Your task to perform on an android device: turn off picture-in-picture Image 0: 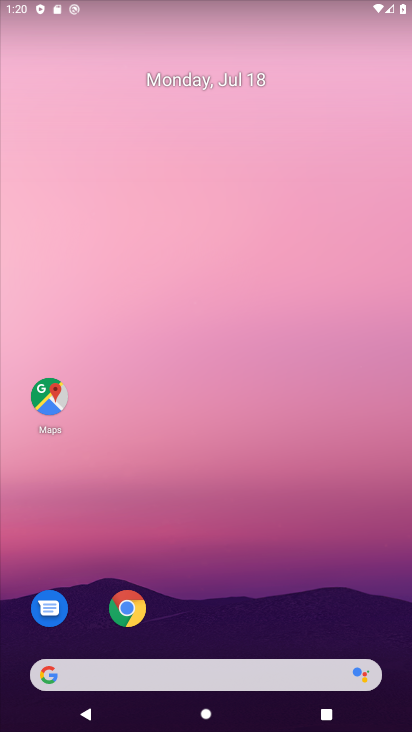
Step 0: drag from (253, 640) to (304, 23)
Your task to perform on an android device: turn off picture-in-picture Image 1: 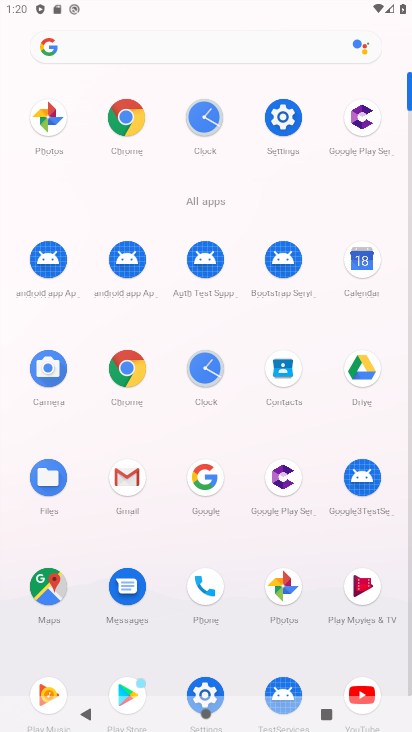
Step 1: click (114, 123)
Your task to perform on an android device: turn off picture-in-picture Image 2: 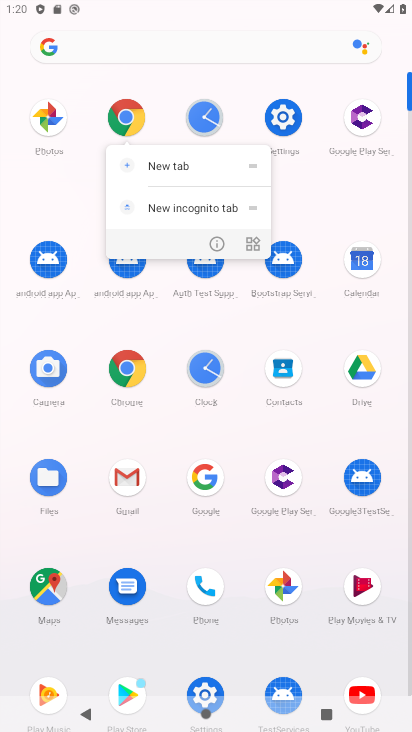
Step 2: click (219, 247)
Your task to perform on an android device: turn off picture-in-picture Image 3: 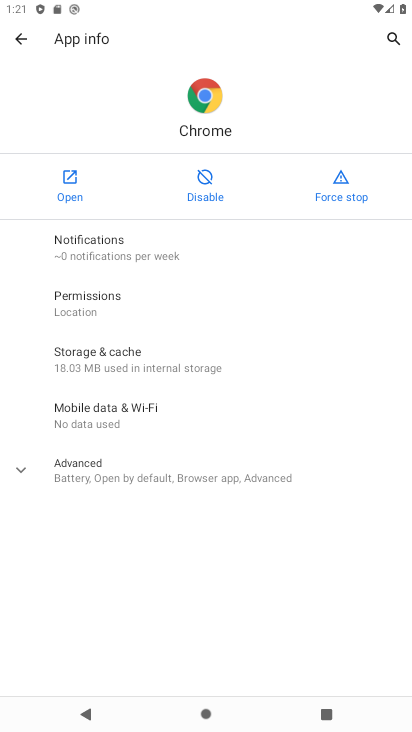
Step 3: click (133, 472)
Your task to perform on an android device: turn off picture-in-picture Image 4: 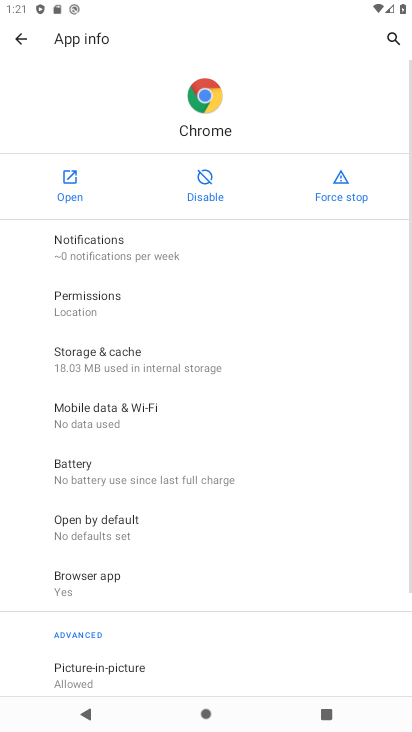
Step 4: drag from (116, 629) to (232, 342)
Your task to perform on an android device: turn off picture-in-picture Image 5: 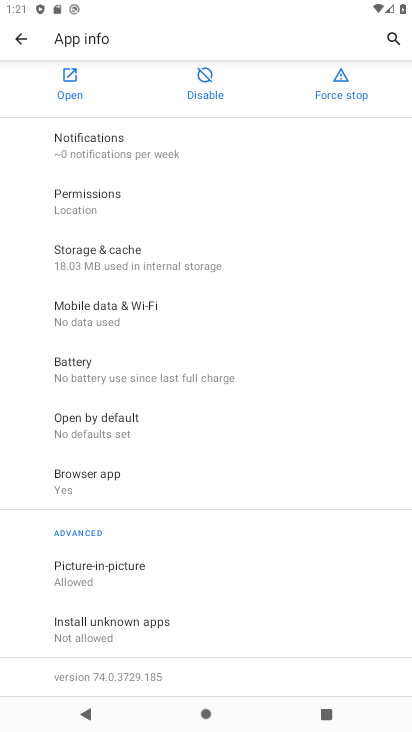
Step 5: click (77, 583)
Your task to perform on an android device: turn off picture-in-picture Image 6: 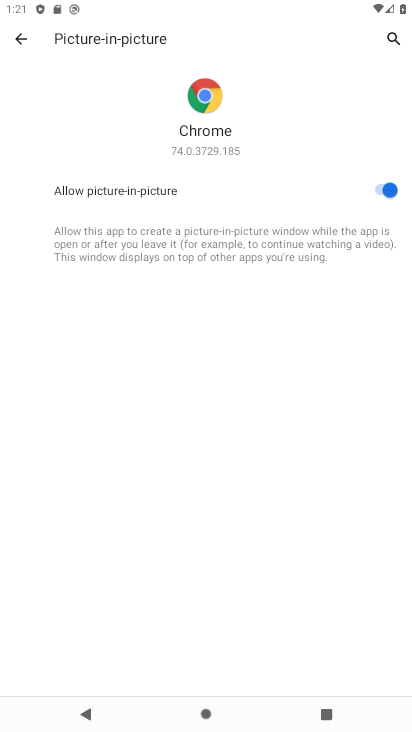
Step 6: click (381, 189)
Your task to perform on an android device: turn off picture-in-picture Image 7: 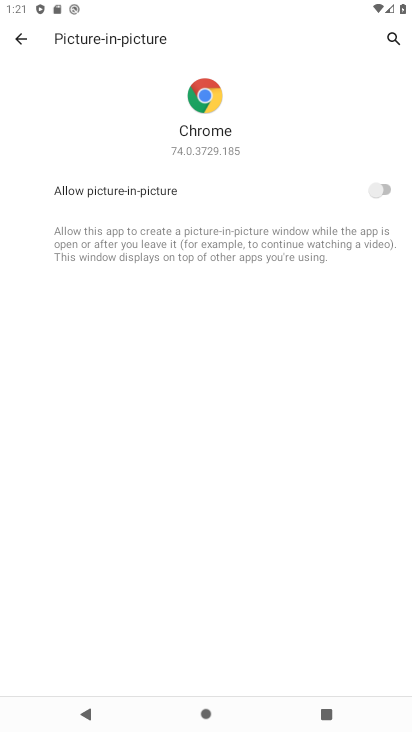
Step 7: task complete